Your task to perform on an android device: turn on priority inbox in the gmail app Image 0: 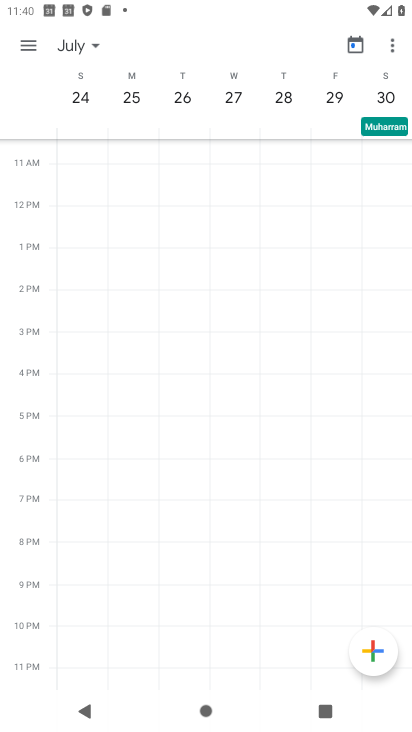
Step 0: press back button
Your task to perform on an android device: turn on priority inbox in the gmail app Image 1: 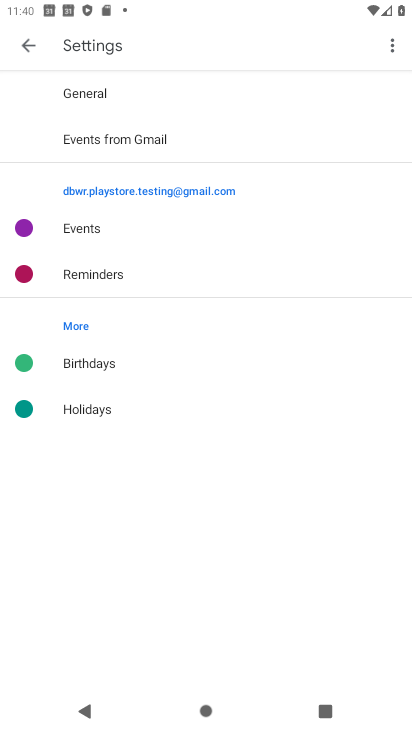
Step 1: press back button
Your task to perform on an android device: turn on priority inbox in the gmail app Image 2: 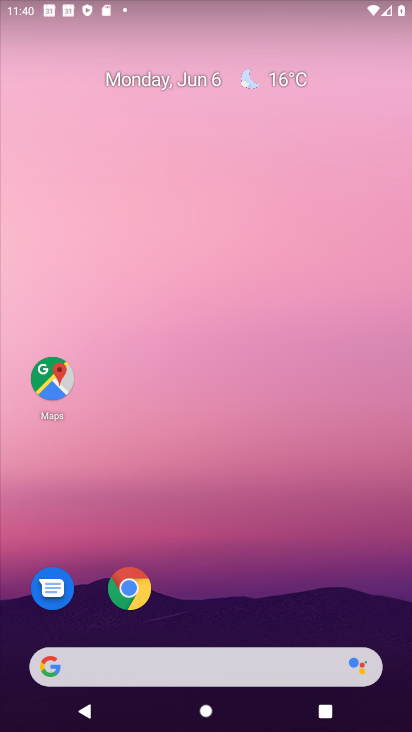
Step 2: drag from (249, 621) to (187, 73)
Your task to perform on an android device: turn on priority inbox in the gmail app Image 3: 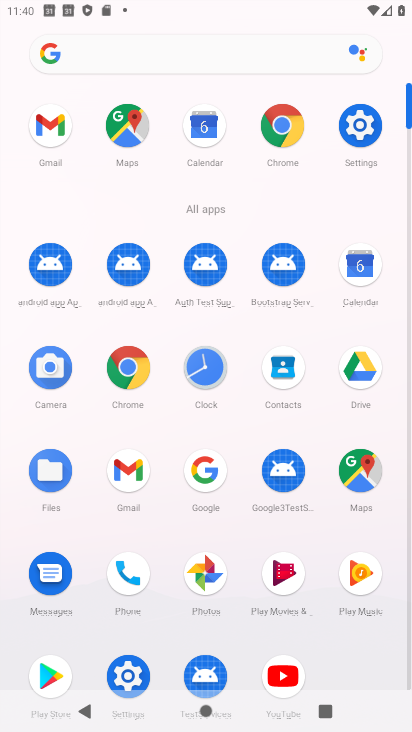
Step 3: click (48, 125)
Your task to perform on an android device: turn on priority inbox in the gmail app Image 4: 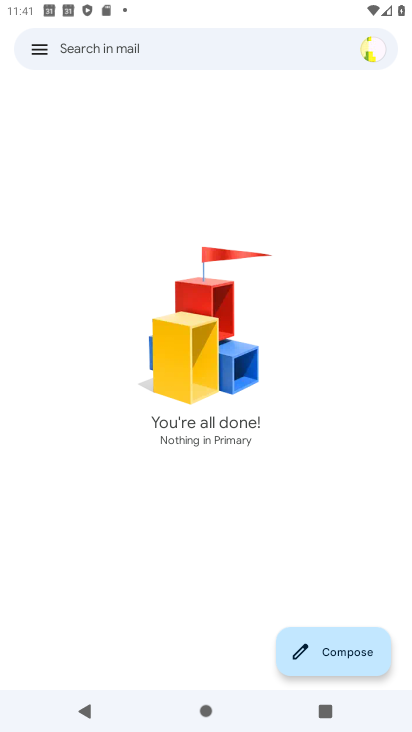
Step 4: click (36, 49)
Your task to perform on an android device: turn on priority inbox in the gmail app Image 5: 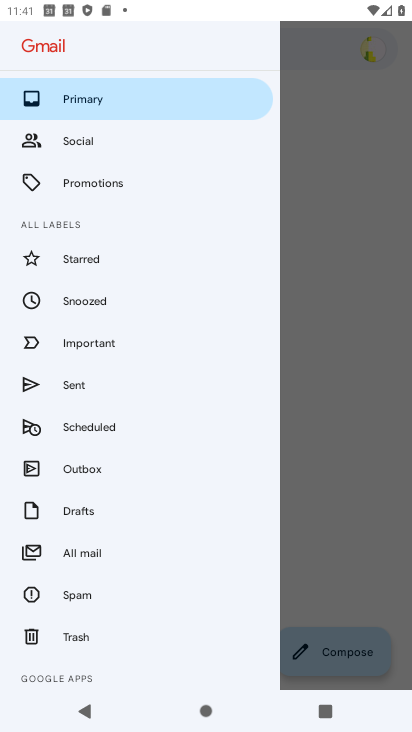
Step 5: drag from (80, 472) to (94, 416)
Your task to perform on an android device: turn on priority inbox in the gmail app Image 6: 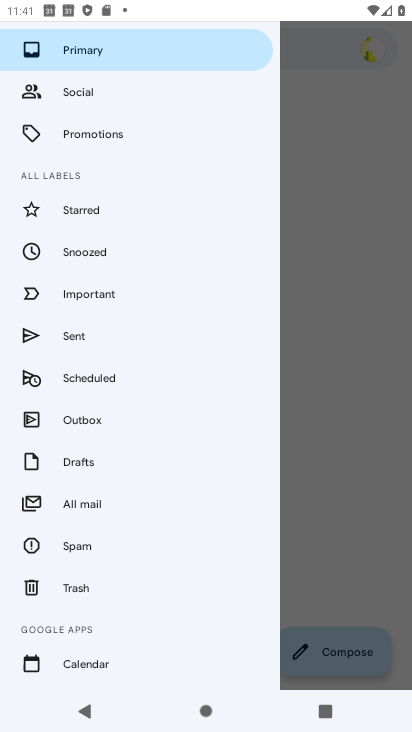
Step 6: drag from (75, 565) to (88, 396)
Your task to perform on an android device: turn on priority inbox in the gmail app Image 7: 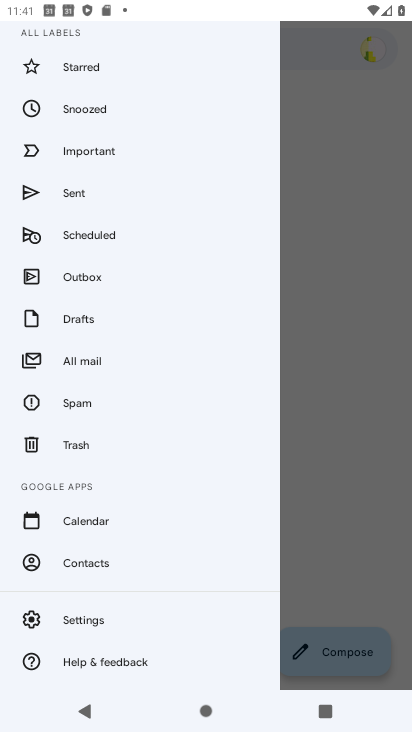
Step 7: click (87, 615)
Your task to perform on an android device: turn on priority inbox in the gmail app Image 8: 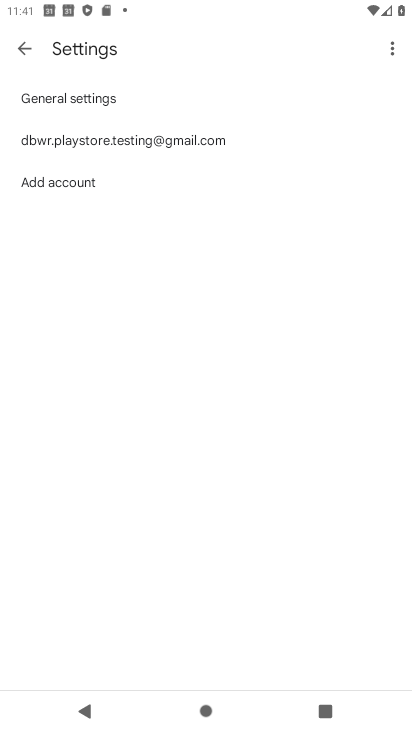
Step 8: click (132, 142)
Your task to perform on an android device: turn on priority inbox in the gmail app Image 9: 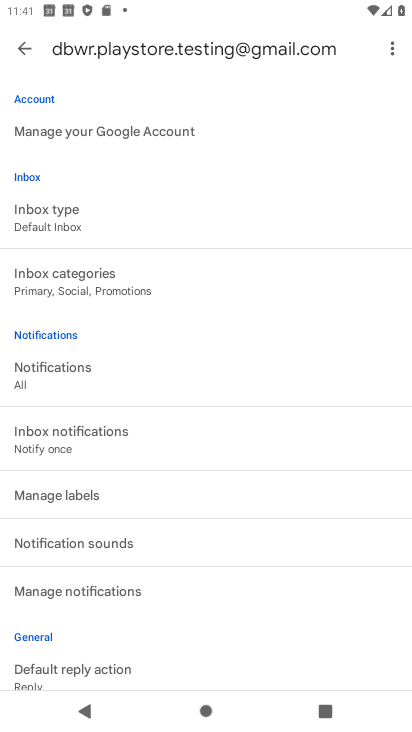
Step 9: click (64, 224)
Your task to perform on an android device: turn on priority inbox in the gmail app Image 10: 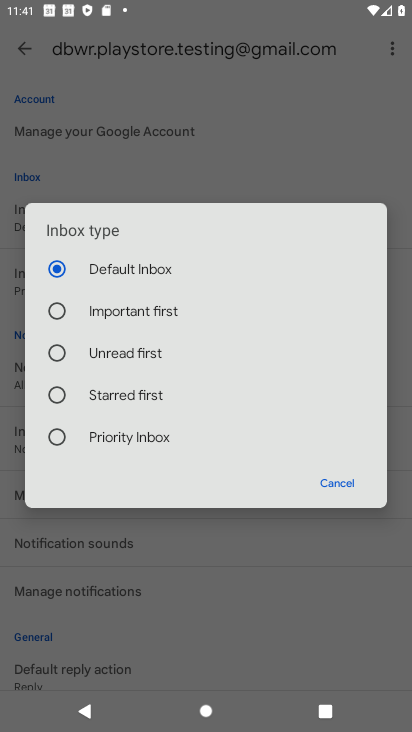
Step 10: click (54, 439)
Your task to perform on an android device: turn on priority inbox in the gmail app Image 11: 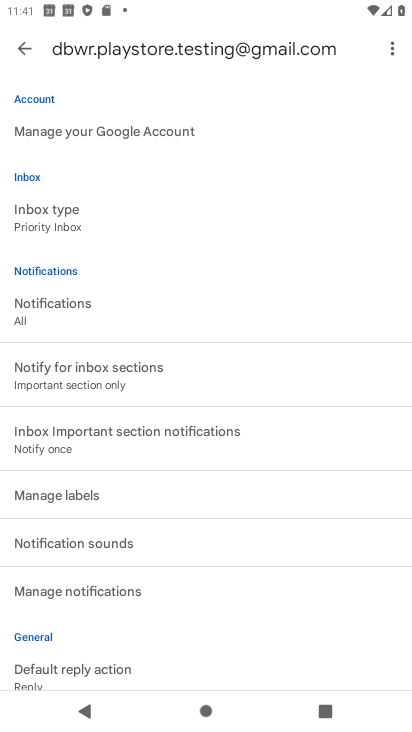
Step 11: task complete